Your task to perform on an android device: Open Google Chrome and click the shortcut for Amazon.com Image 0: 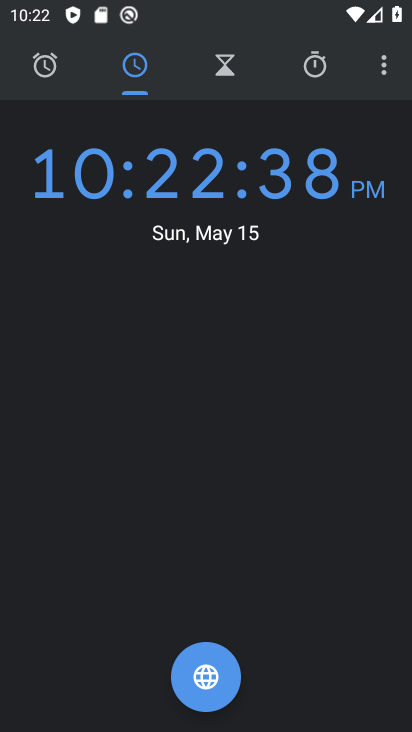
Step 0: press back button
Your task to perform on an android device: Open Google Chrome and click the shortcut for Amazon.com Image 1: 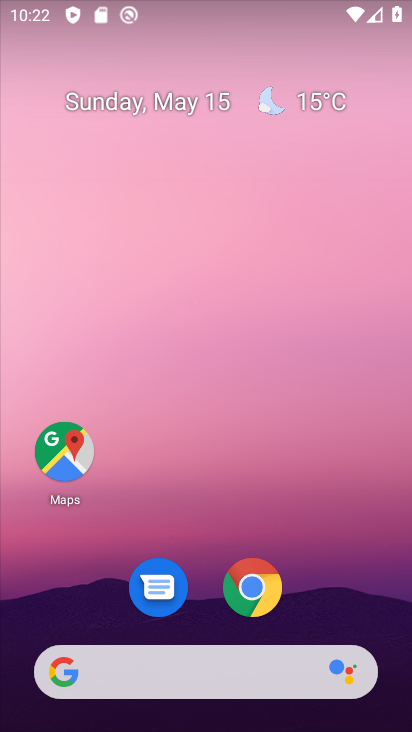
Step 1: click (257, 601)
Your task to perform on an android device: Open Google Chrome and click the shortcut for Amazon.com Image 2: 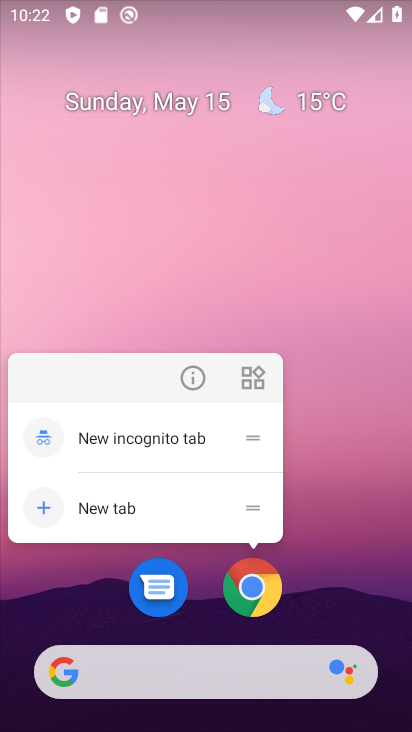
Step 2: click (255, 580)
Your task to perform on an android device: Open Google Chrome and click the shortcut for Amazon.com Image 3: 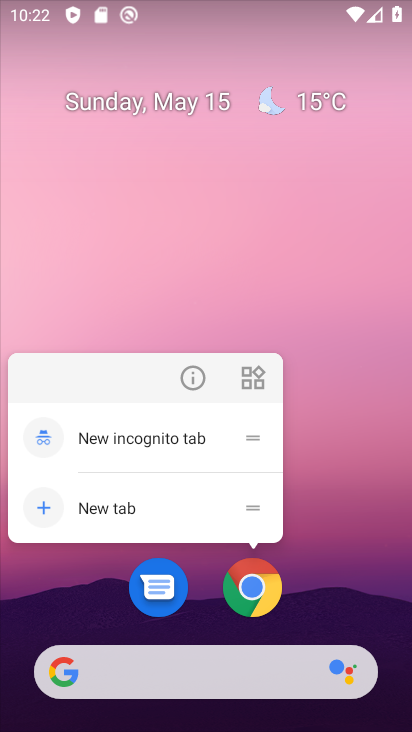
Step 3: click (255, 590)
Your task to perform on an android device: Open Google Chrome and click the shortcut for Amazon.com Image 4: 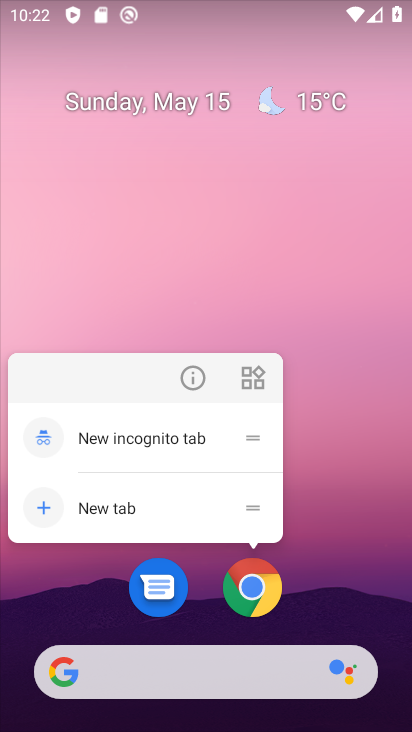
Step 4: click (256, 584)
Your task to perform on an android device: Open Google Chrome and click the shortcut for Amazon.com Image 5: 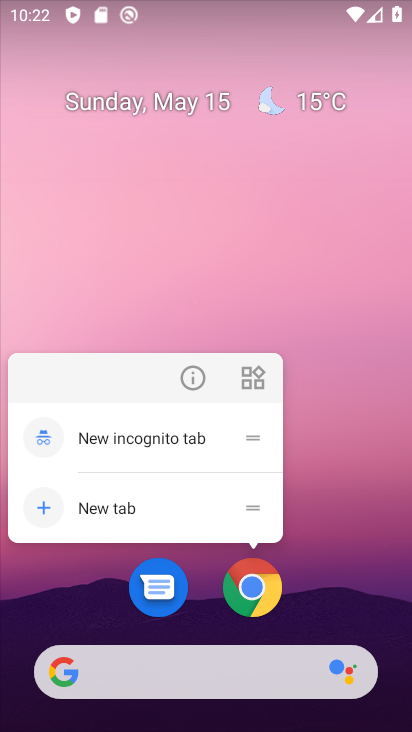
Step 5: click (264, 603)
Your task to perform on an android device: Open Google Chrome and click the shortcut for Amazon.com Image 6: 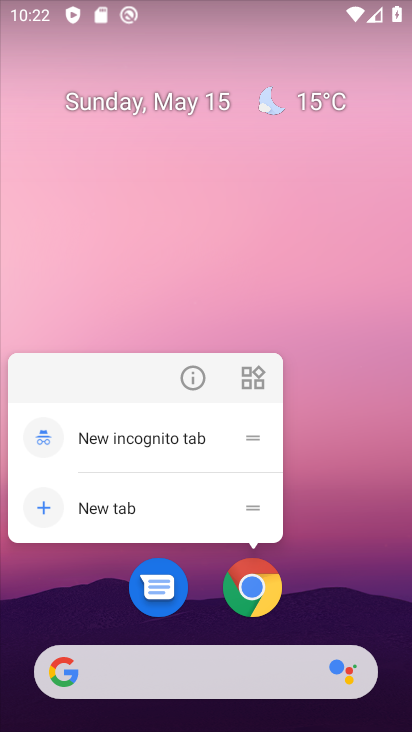
Step 6: click (259, 593)
Your task to perform on an android device: Open Google Chrome and click the shortcut for Amazon.com Image 7: 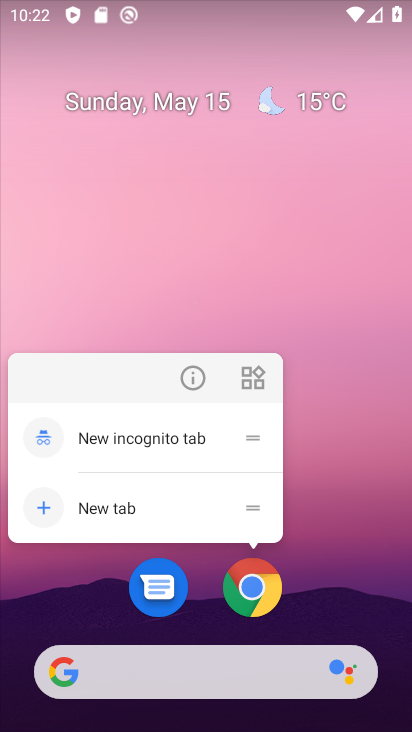
Step 7: click (259, 592)
Your task to perform on an android device: Open Google Chrome and click the shortcut for Amazon.com Image 8: 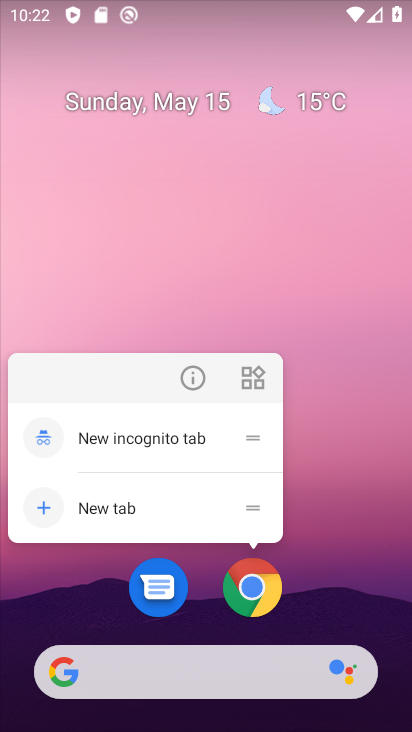
Step 8: click (252, 586)
Your task to perform on an android device: Open Google Chrome and click the shortcut for Amazon.com Image 9: 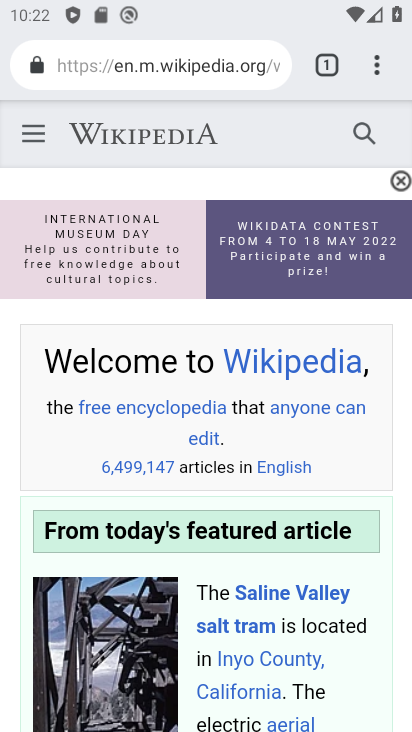
Step 9: drag from (376, 73) to (355, 197)
Your task to perform on an android device: Open Google Chrome and click the shortcut for Amazon.com Image 10: 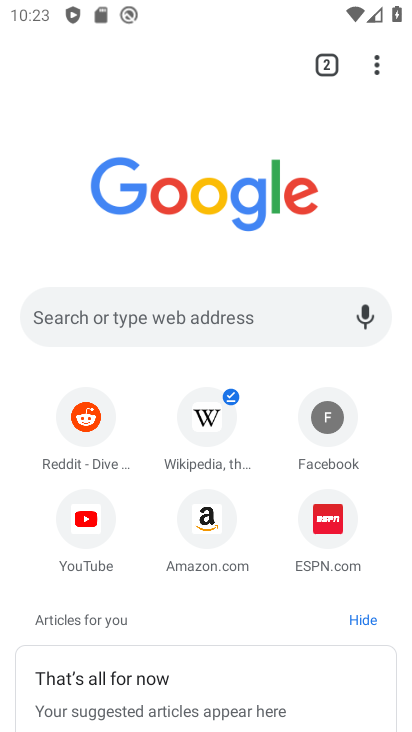
Step 10: click (216, 525)
Your task to perform on an android device: Open Google Chrome and click the shortcut for Amazon.com Image 11: 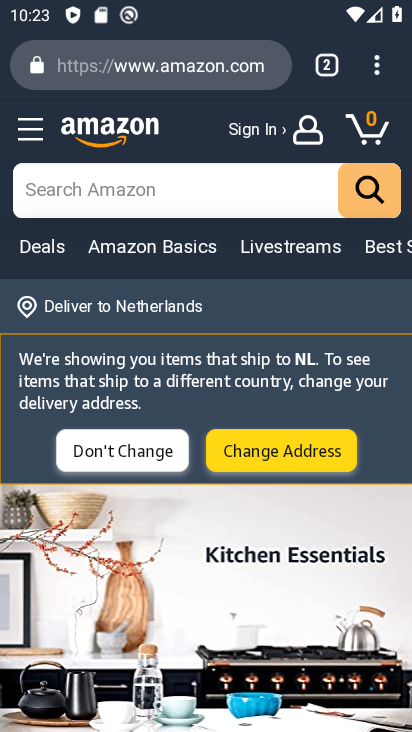
Step 11: task complete